Your task to perform on an android device: Search for "asus rog" on walmart, select the first entry, add it to the cart, then select checkout. Image 0: 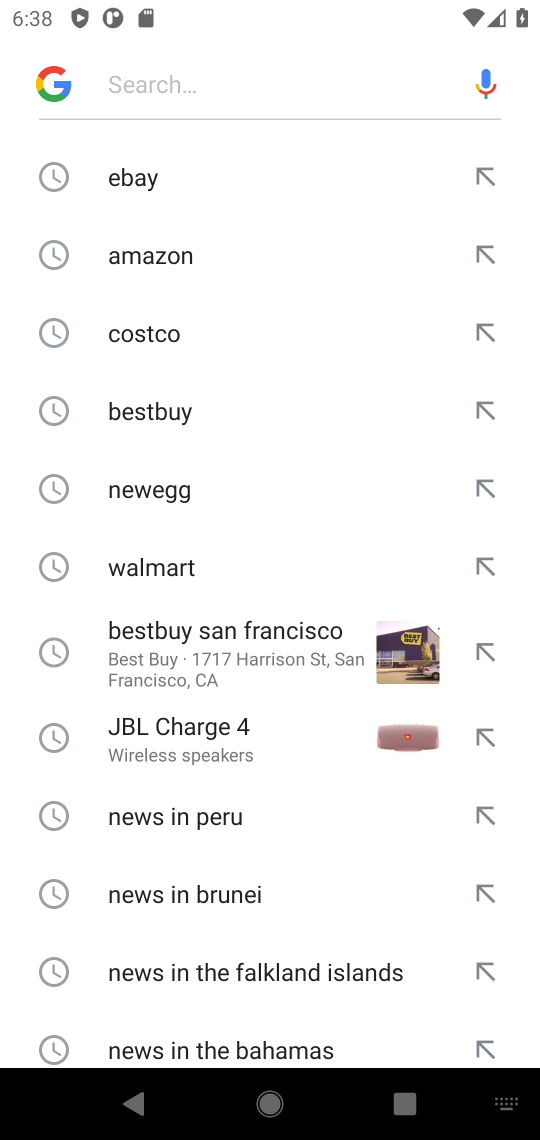
Step 0: press home button
Your task to perform on an android device: Search for "asus rog" on walmart, select the first entry, add it to the cart, then select checkout. Image 1: 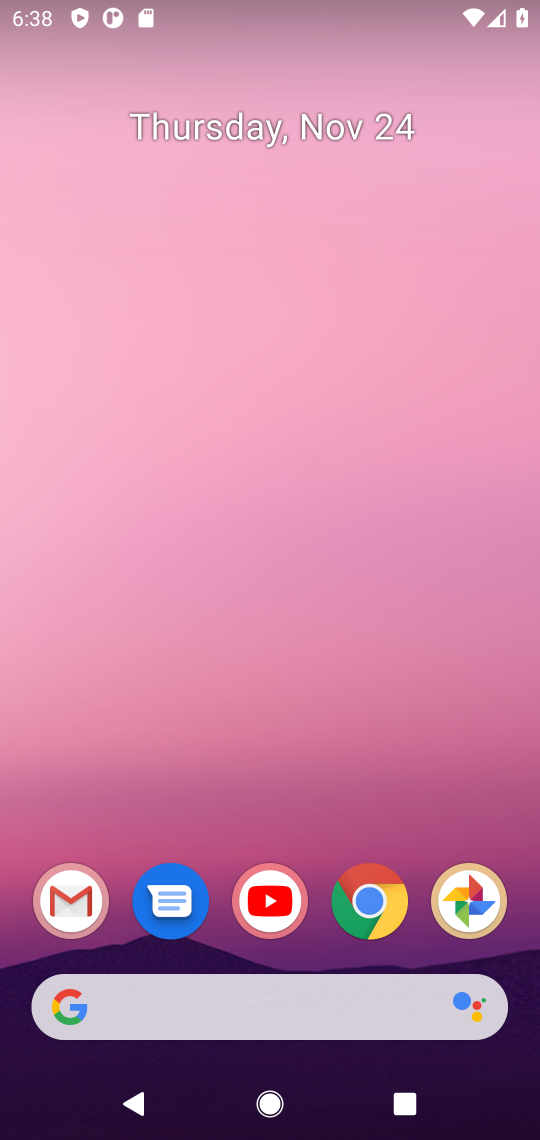
Step 1: click (371, 896)
Your task to perform on an android device: Search for "asus rog" on walmart, select the first entry, add it to the cart, then select checkout. Image 2: 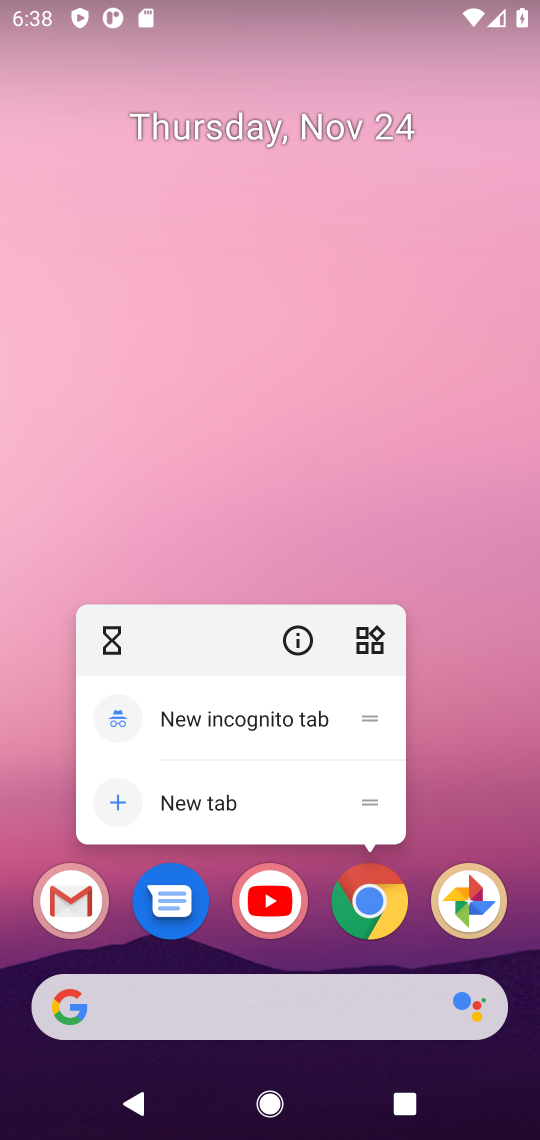
Step 2: click (371, 896)
Your task to perform on an android device: Search for "asus rog" on walmart, select the first entry, add it to the cart, then select checkout. Image 3: 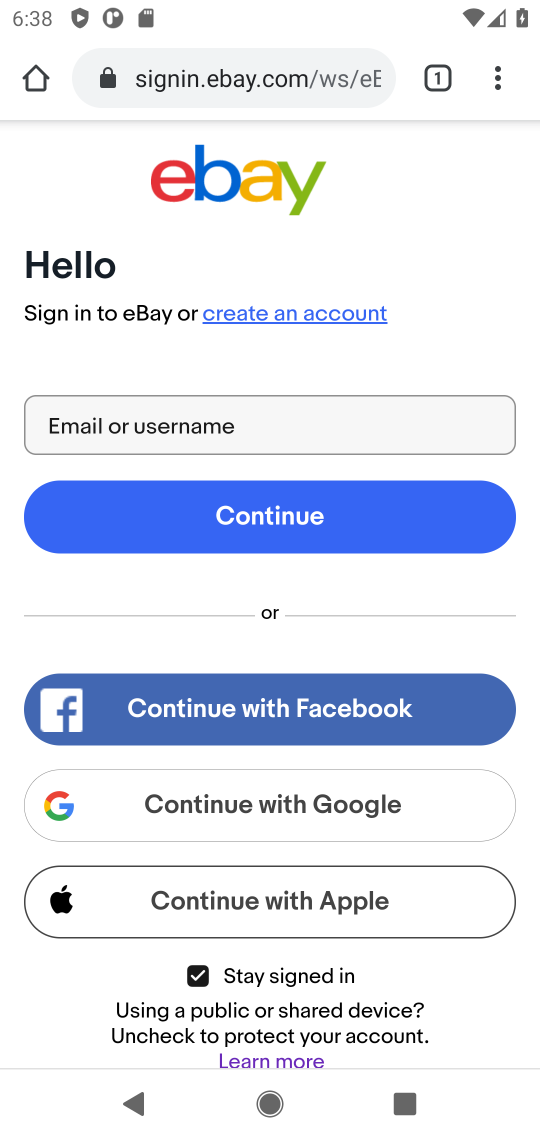
Step 3: click (293, 85)
Your task to perform on an android device: Search for "asus rog" on walmart, select the first entry, add it to the cart, then select checkout. Image 4: 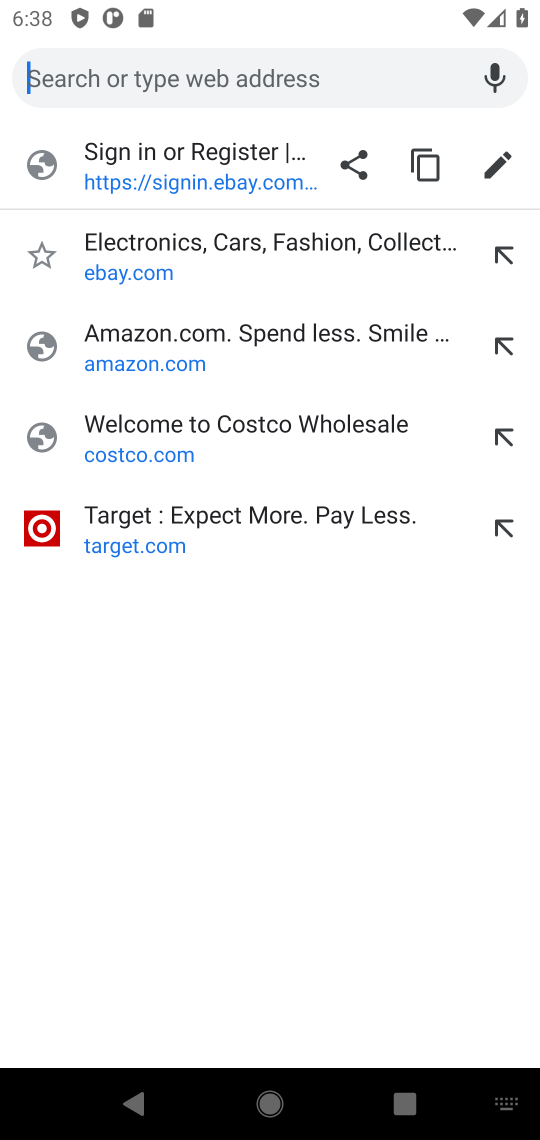
Step 4: type "walmart"
Your task to perform on an android device: Search for "asus rog" on walmart, select the first entry, add it to the cart, then select checkout. Image 5: 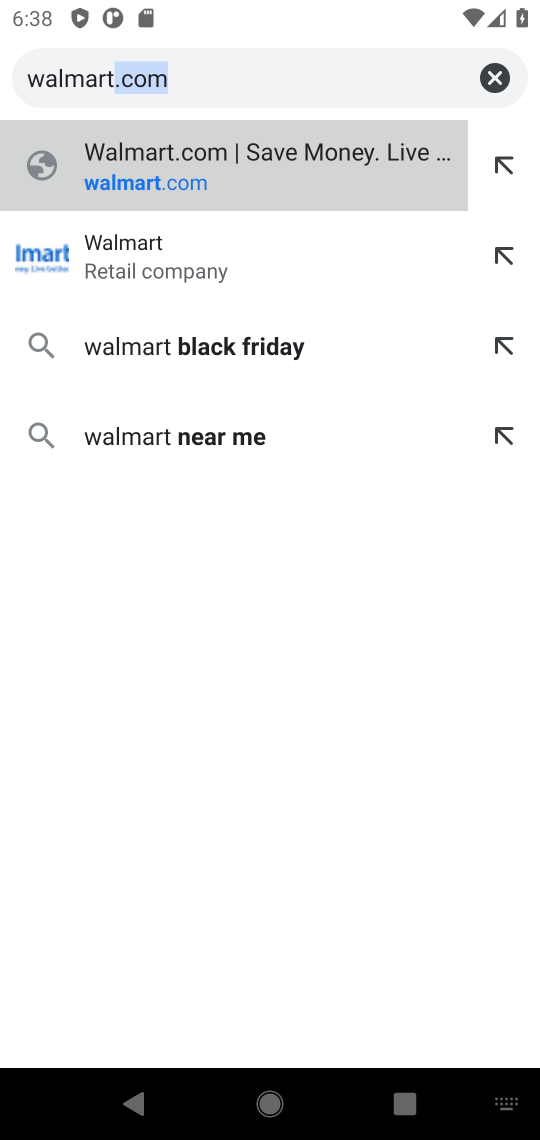
Step 5: click (205, 182)
Your task to perform on an android device: Search for "asus rog" on walmart, select the first entry, add it to the cart, then select checkout. Image 6: 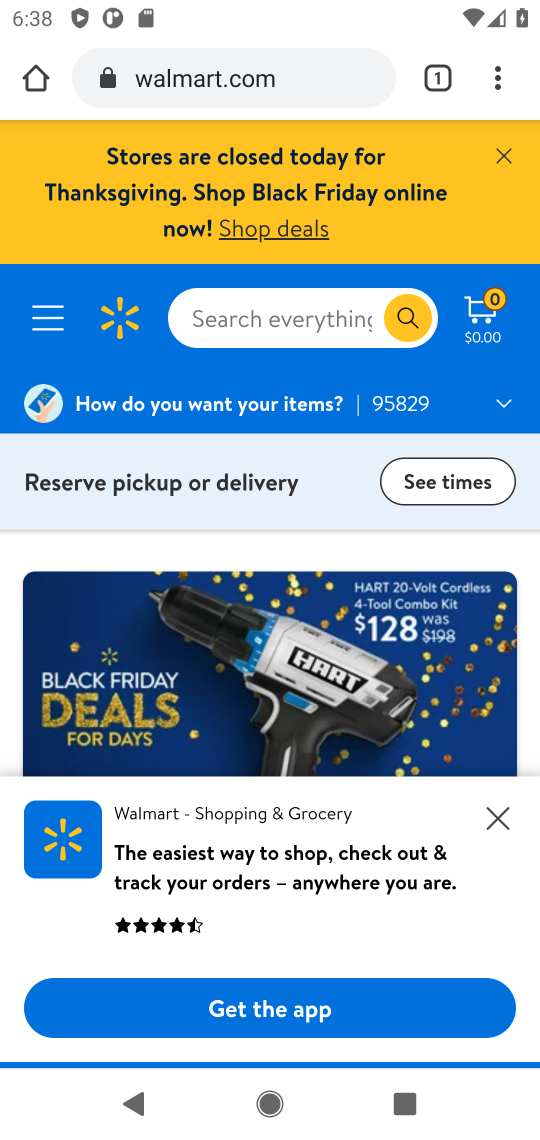
Step 6: click (308, 333)
Your task to perform on an android device: Search for "asus rog" on walmart, select the first entry, add it to the cart, then select checkout. Image 7: 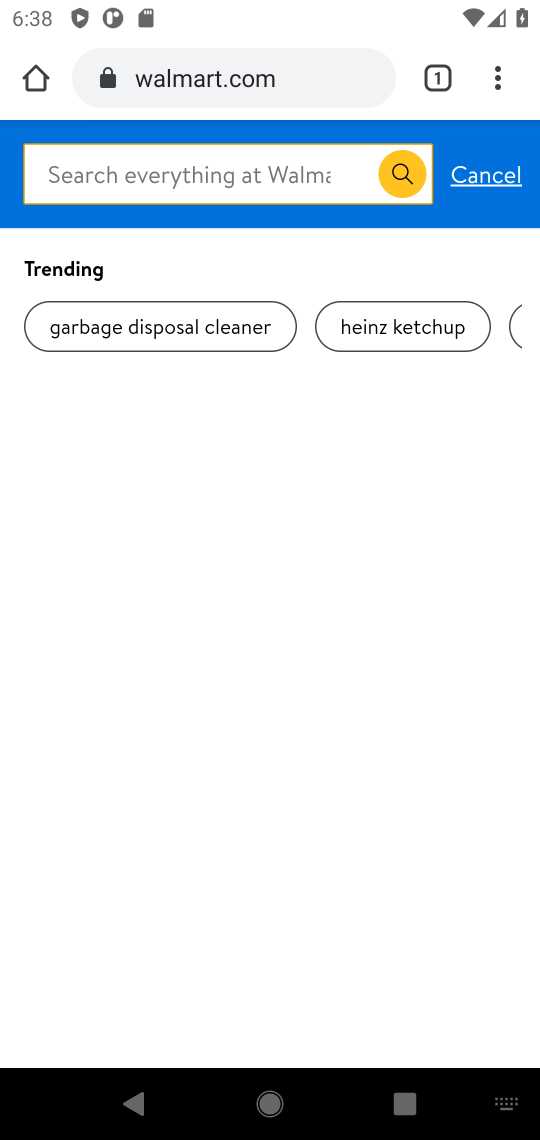
Step 7: type "asus rog"
Your task to perform on an android device: Search for "asus rog" on walmart, select the first entry, add it to the cart, then select checkout. Image 8: 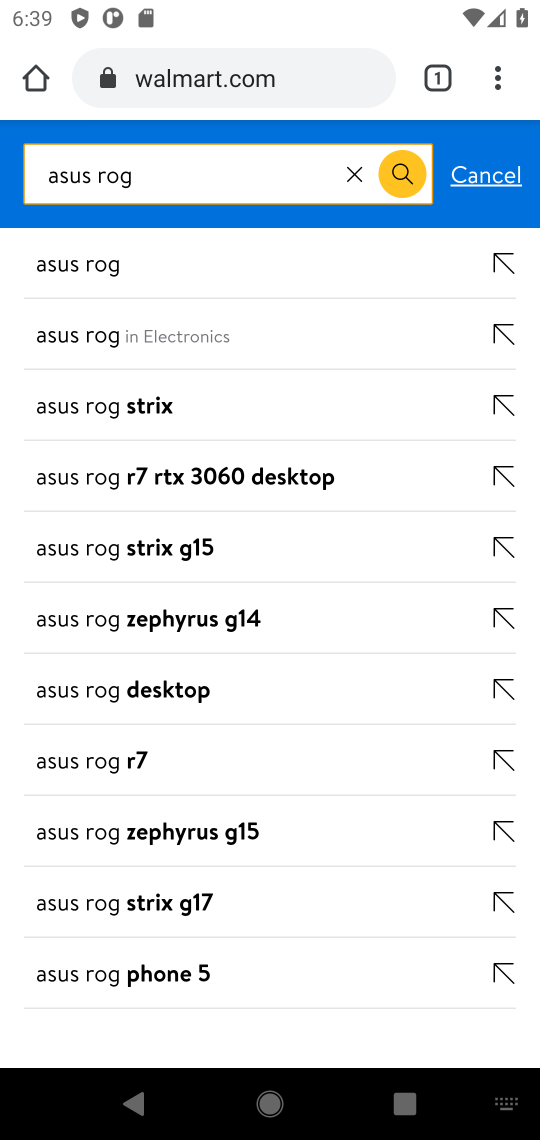
Step 8: click (293, 282)
Your task to perform on an android device: Search for "asus rog" on walmart, select the first entry, add it to the cart, then select checkout. Image 9: 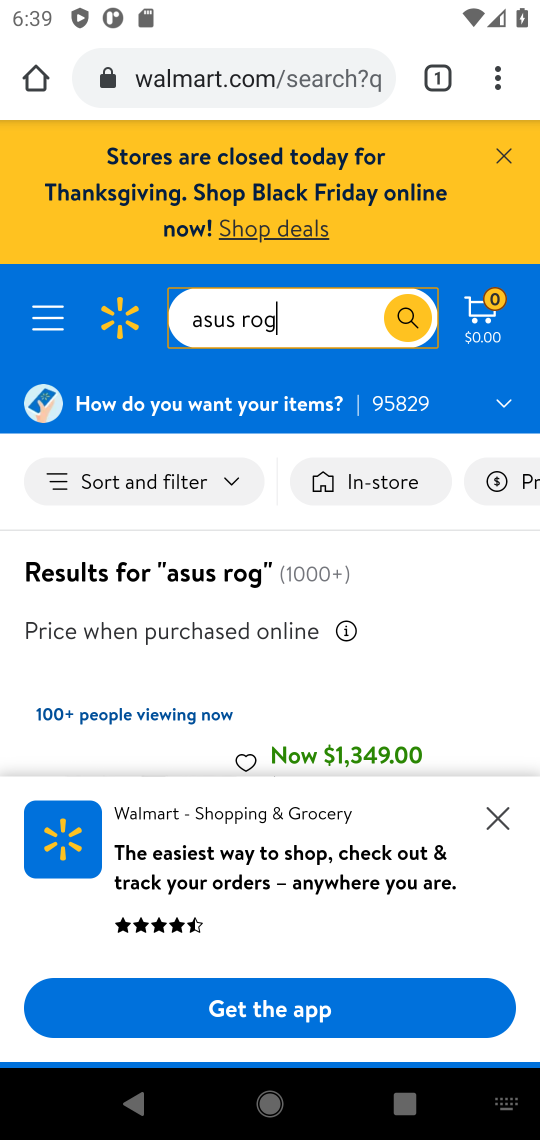
Step 9: drag from (485, 749) to (459, 374)
Your task to perform on an android device: Search for "asus rog" on walmart, select the first entry, add it to the cart, then select checkout. Image 10: 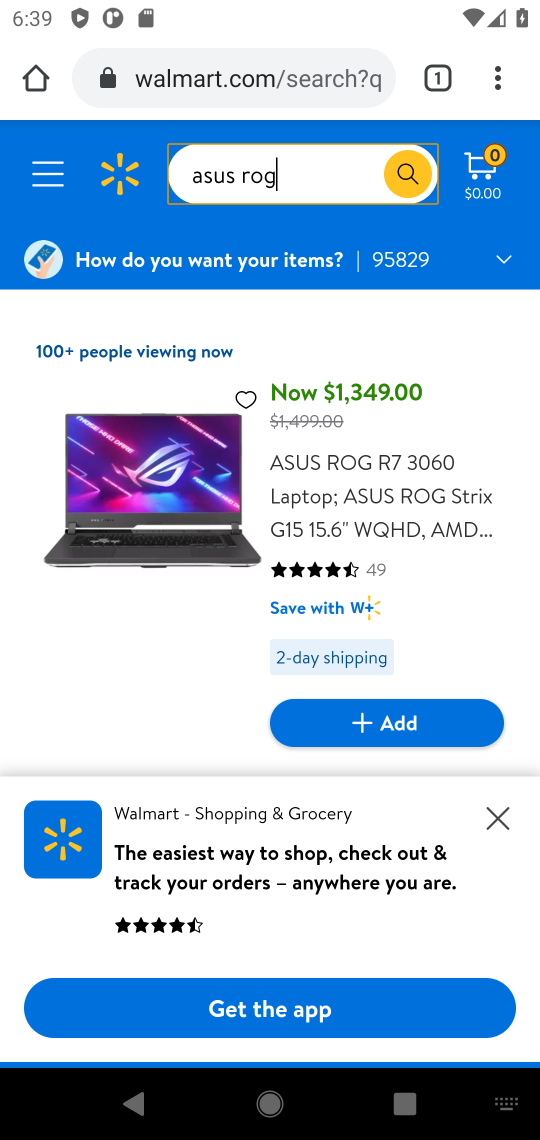
Step 10: click (426, 725)
Your task to perform on an android device: Search for "asus rog" on walmart, select the first entry, add it to the cart, then select checkout. Image 11: 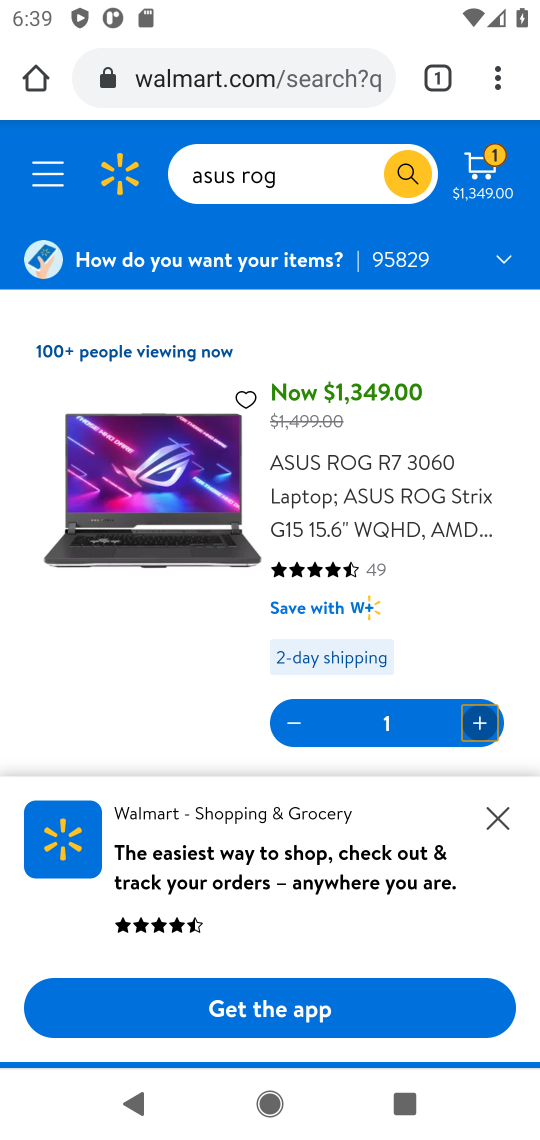
Step 11: click (488, 172)
Your task to perform on an android device: Search for "asus rog" on walmart, select the first entry, add it to the cart, then select checkout. Image 12: 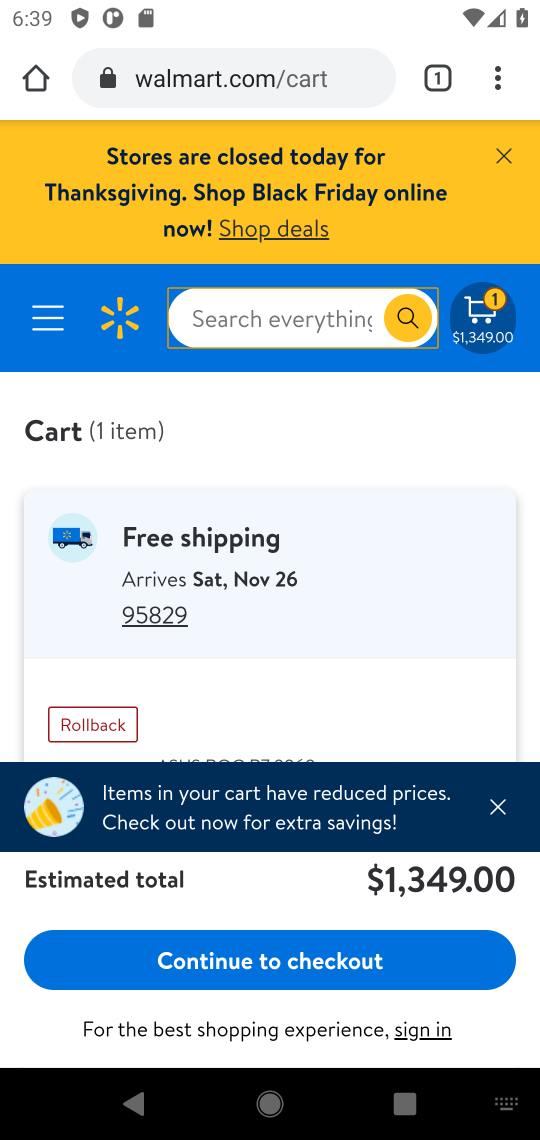
Step 12: click (306, 961)
Your task to perform on an android device: Search for "asus rog" on walmart, select the first entry, add it to the cart, then select checkout. Image 13: 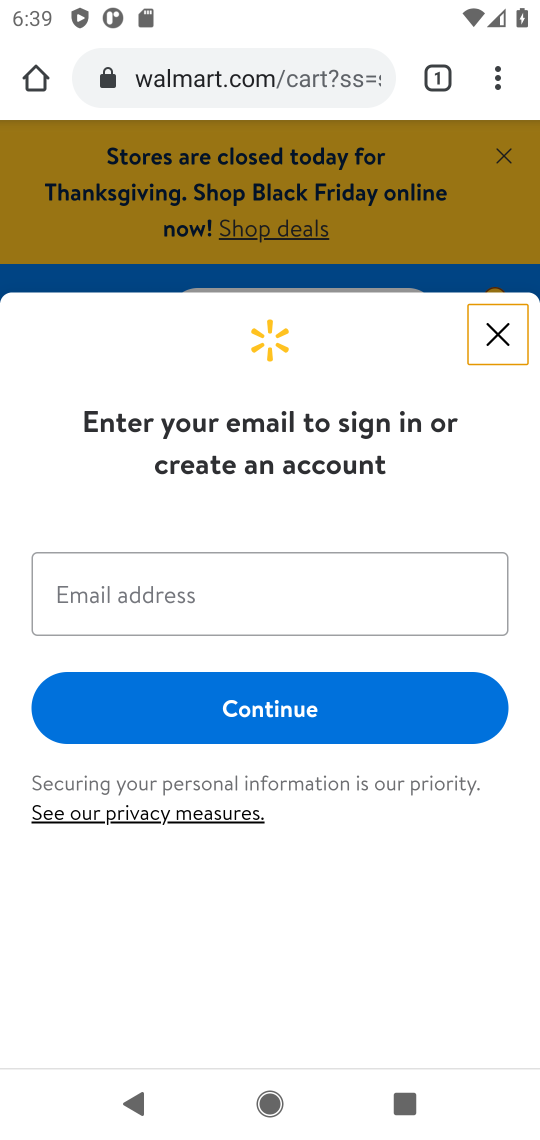
Step 13: task complete